Your task to perform on an android device: see tabs open on other devices in the chrome app Image 0: 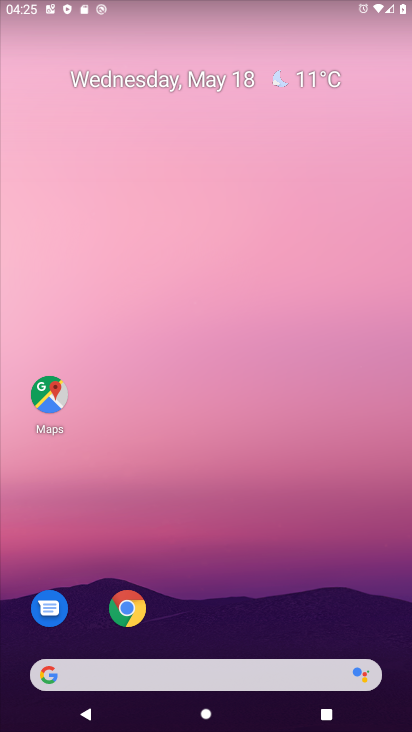
Step 0: click (129, 600)
Your task to perform on an android device: see tabs open on other devices in the chrome app Image 1: 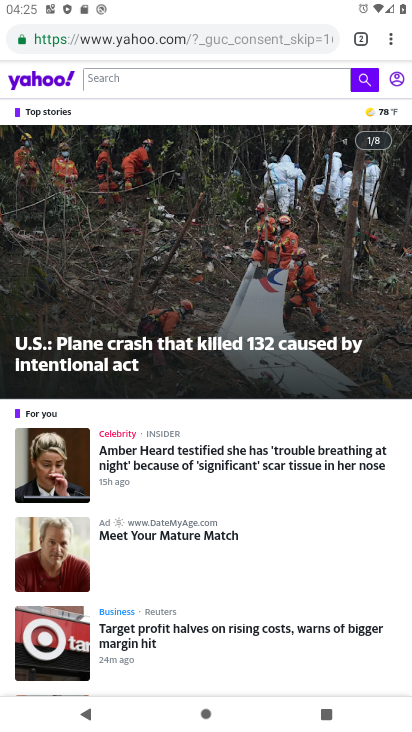
Step 1: click (396, 35)
Your task to perform on an android device: see tabs open on other devices in the chrome app Image 2: 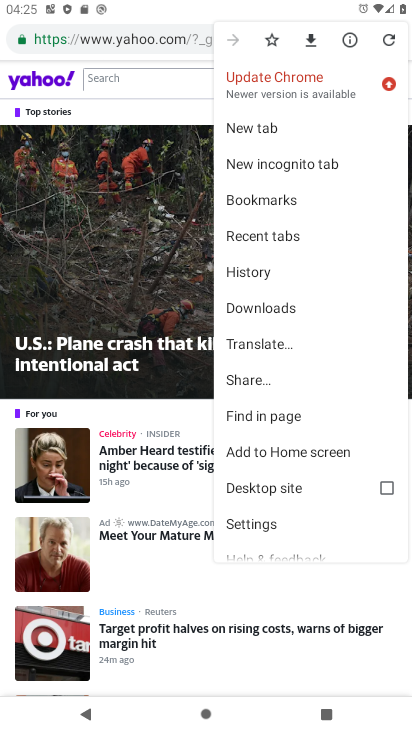
Step 2: click (274, 230)
Your task to perform on an android device: see tabs open on other devices in the chrome app Image 3: 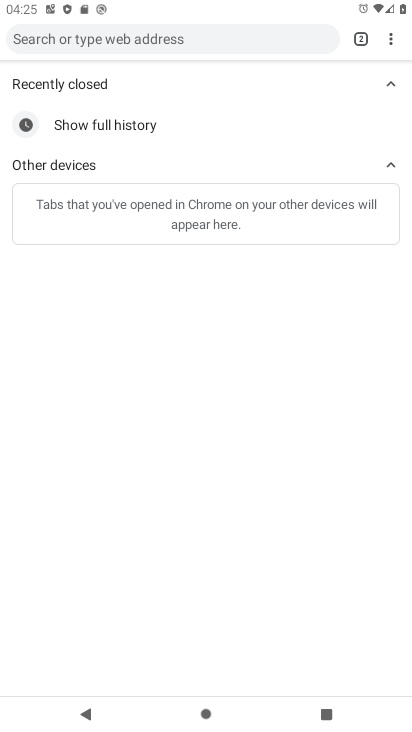
Step 3: click (71, 159)
Your task to perform on an android device: see tabs open on other devices in the chrome app Image 4: 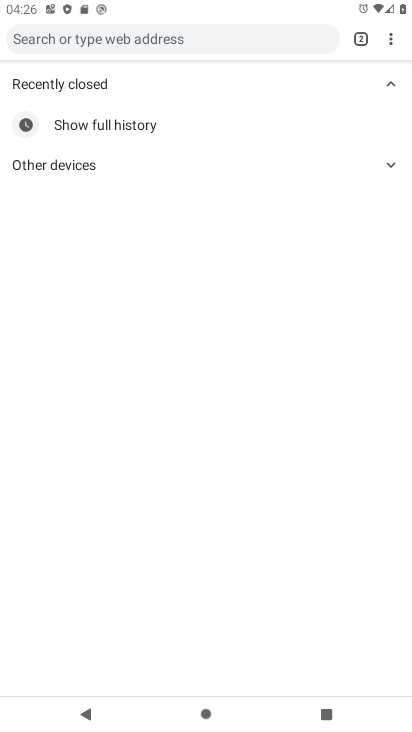
Step 4: task complete